Your task to perform on an android device: Open Maps and search for coffee Image 0: 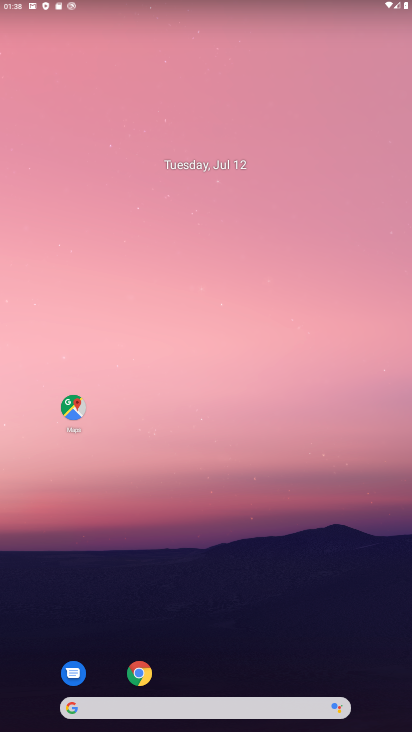
Step 0: press home button
Your task to perform on an android device: Open Maps and search for coffee Image 1: 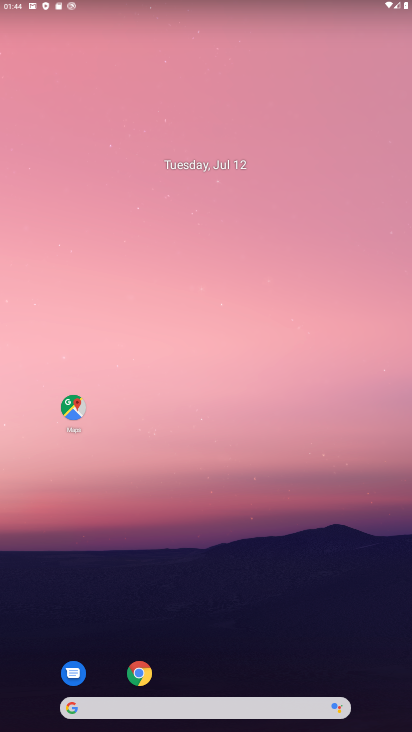
Step 1: press home button
Your task to perform on an android device: Open Maps and search for coffee Image 2: 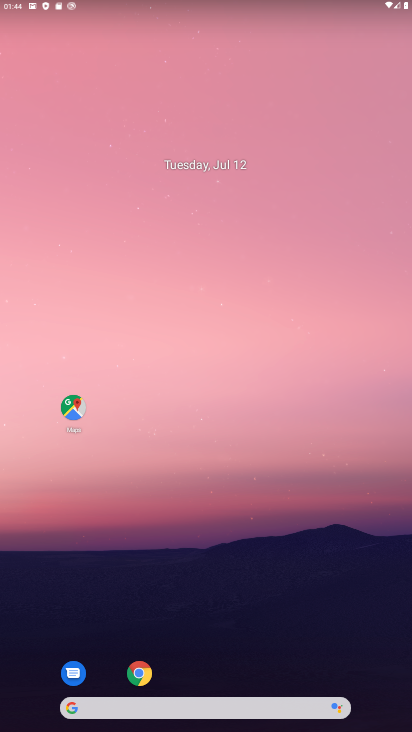
Step 2: drag from (261, 612) to (191, 210)
Your task to perform on an android device: Open Maps and search for coffee Image 3: 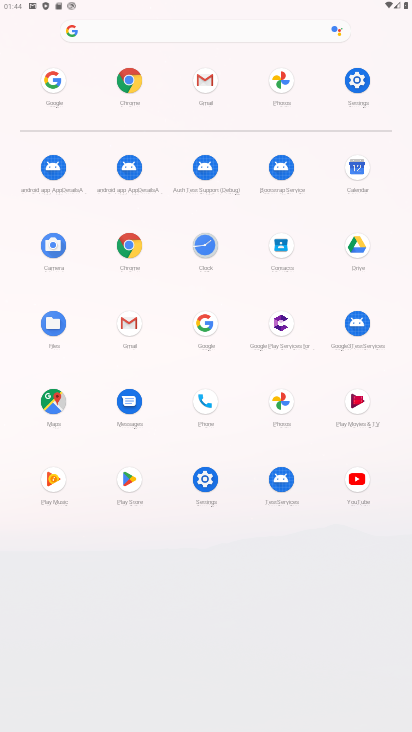
Step 3: click (56, 407)
Your task to perform on an android device: Open Maps and search for coffee Image 4: 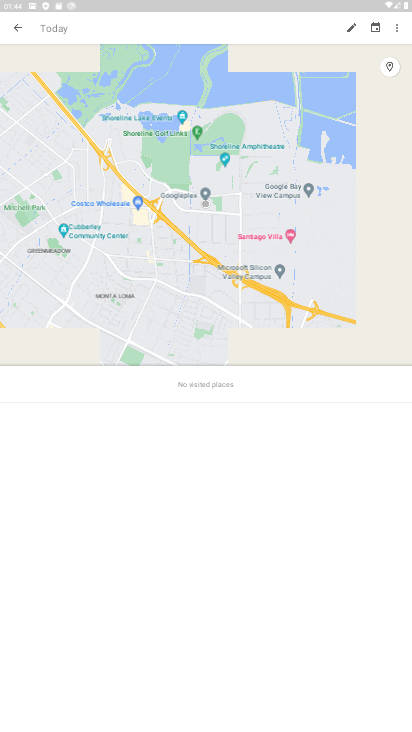
Step 4: type " coffee"
Your task to perform on an android device: Open Maps and search for coffee Image 5: 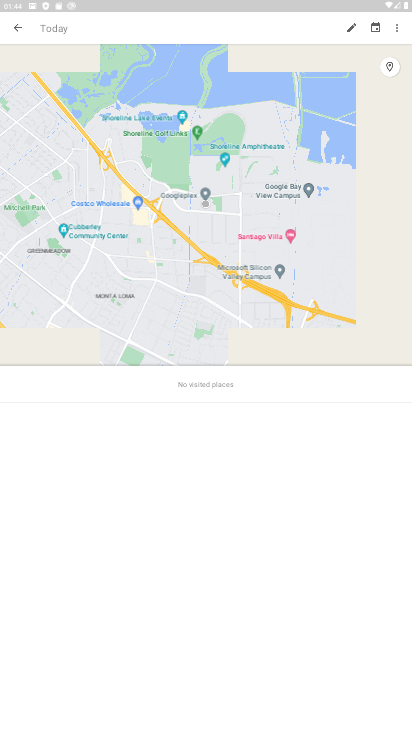
Step 5: click (72, 26)
Your task to perform on an android device: Open Maps and search for coffee Image 6: 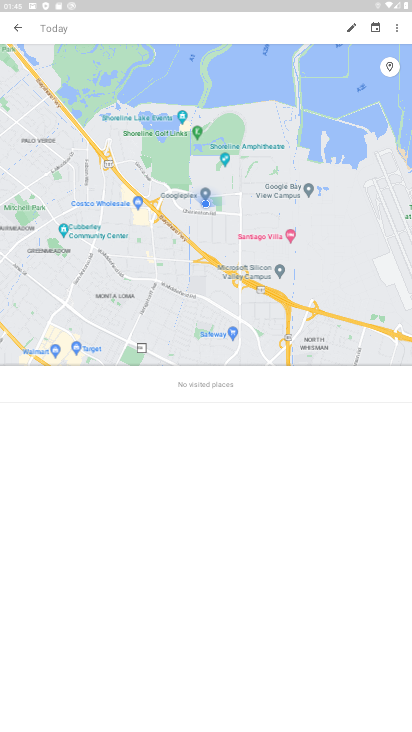
Step 6: click (123, 28)
Your task to perform on an android device: Open Maps and search for coffee Image 7: 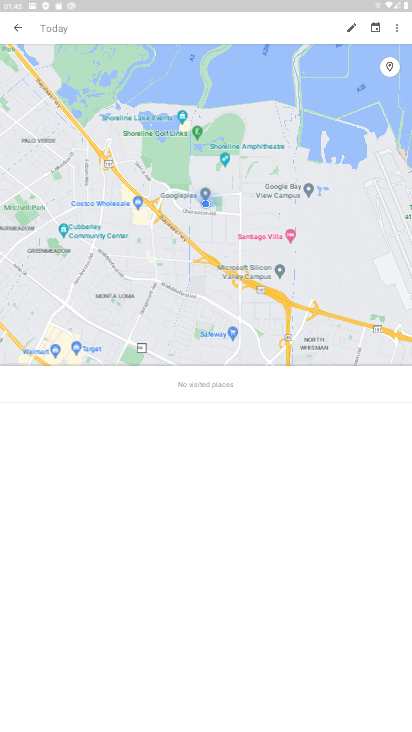
Step 7: click (22, 30)
Your task to perform on an android device: Open Maps and search for coffee Image 8: 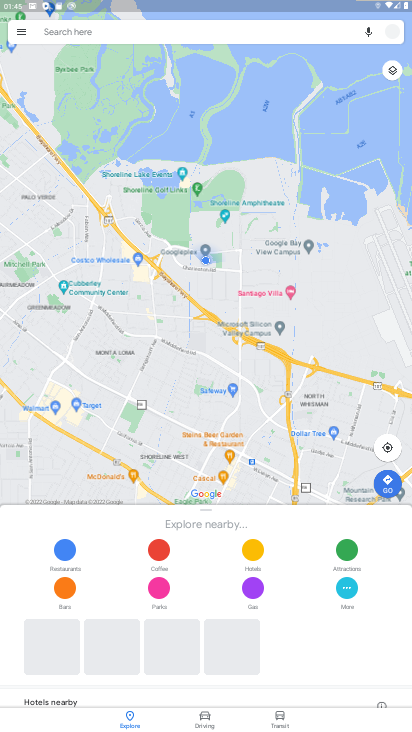
Step 8: click (154, 33)
Your task to perform on an android device: Open Maps and search for coffee Image 9: 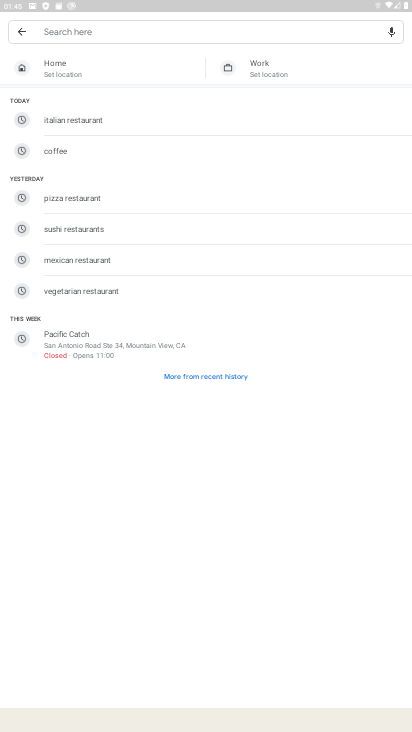
Step 9: type " coffee"
Your task to perform on an android device: Open Maps and search for coffee Image 10: 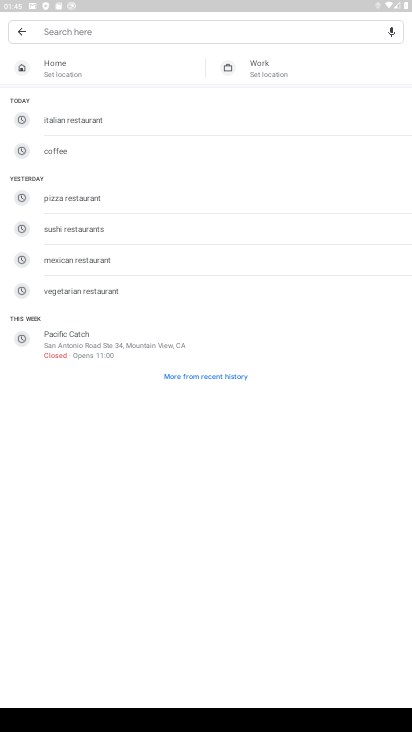
Step 10: click (62, 22)
Your task to perform on an android device: Open Maps and search for coffee Image 11: 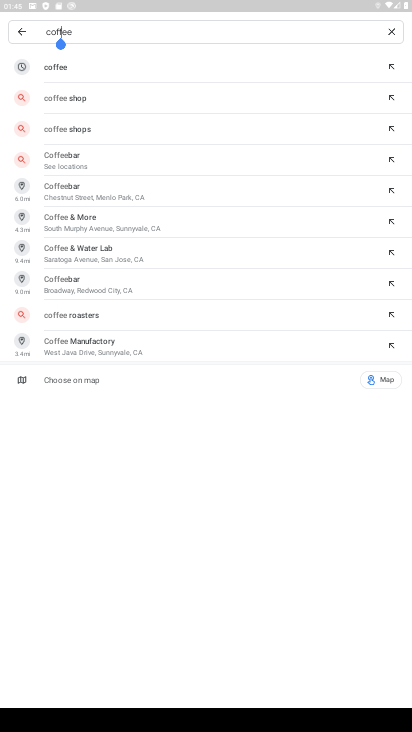
Step 11: click (51, 67)
Your task to perform on an android device: Open Maps and search for coffee Image 12: 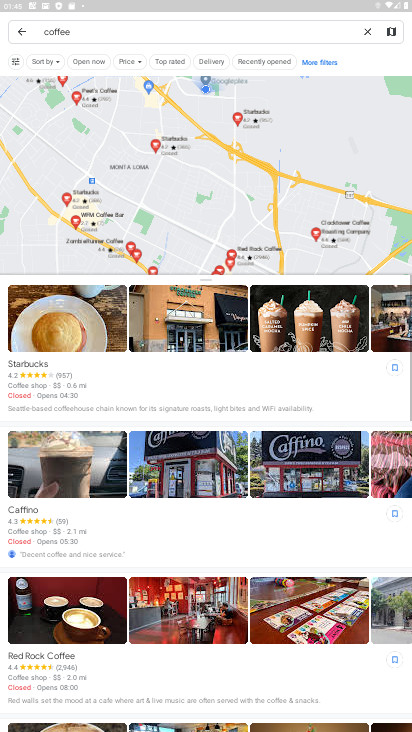
Step 12: task complete